Your task to perform on an android device: Open maps Image 0: 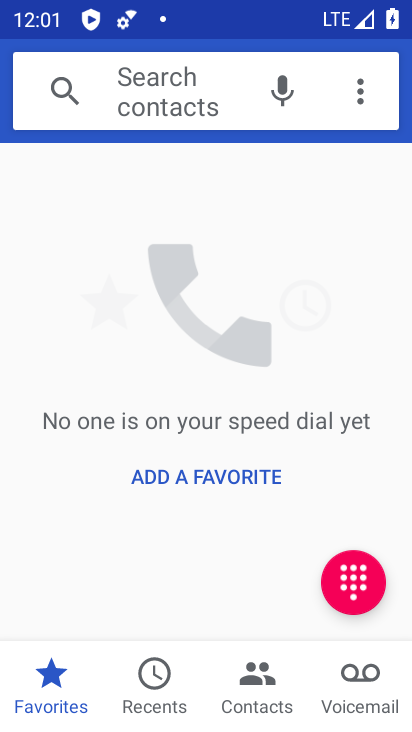
Step 0: press home button
Your task to perform on an android device: Open maps Image 1: 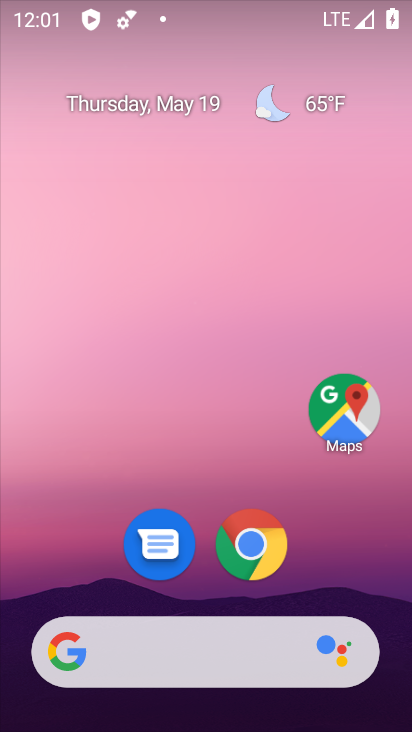
Step 1: drag from (370, 579) to (366, 203)
Your task to perform on an android device: Open maps Image 2: 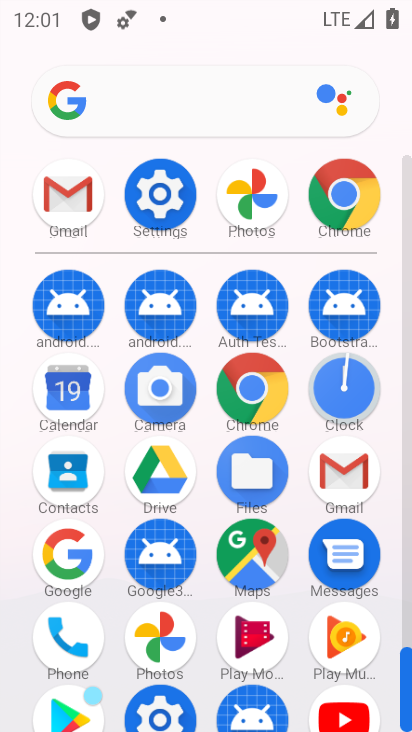
Step 2: click (230, 552)
Your task to perform on an android device: Open maps Image 3: 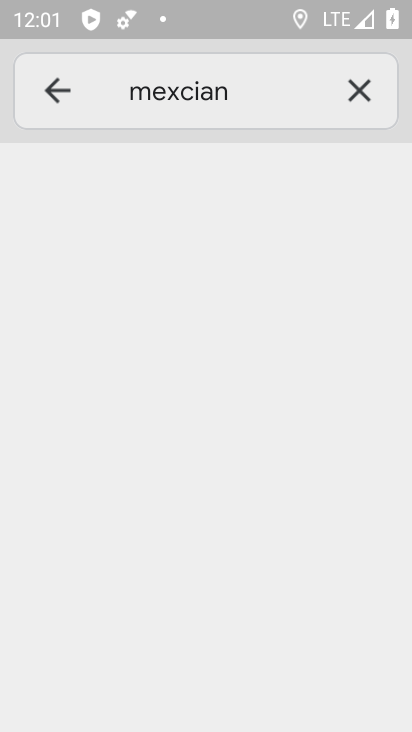
Step 3: click (362, 84)
Your task to perform on an android device: Open maps Image 4: 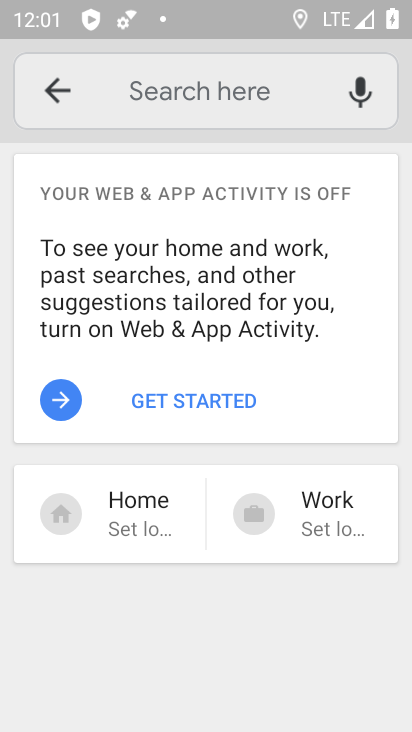
Step 4: task complete